Your task to perform on an android device: open the mobile data screen to see how much data has been used Image 0: 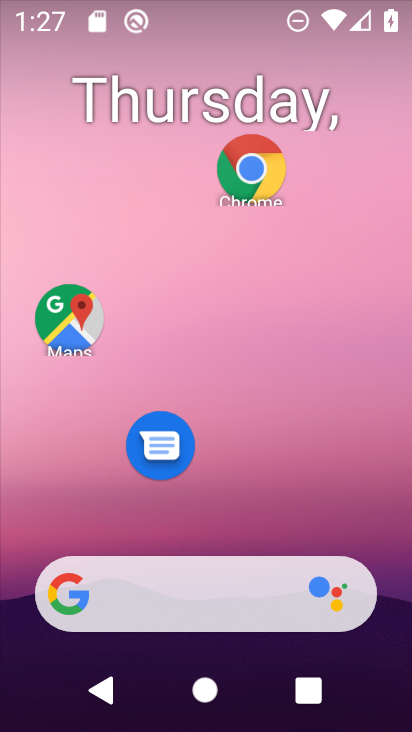
Step 0: drag from (238, 612) to (321, 85)
Your task to perform on an android device: open the mobile data screen to see how much data has been used Image 1: 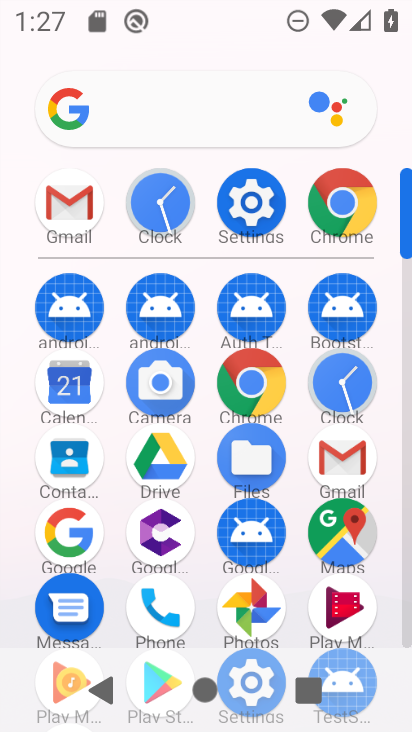
Step 1: click (249, 197)
Your task to perform on an android device: open the mobile data screen to see how much data has been used Image 2: 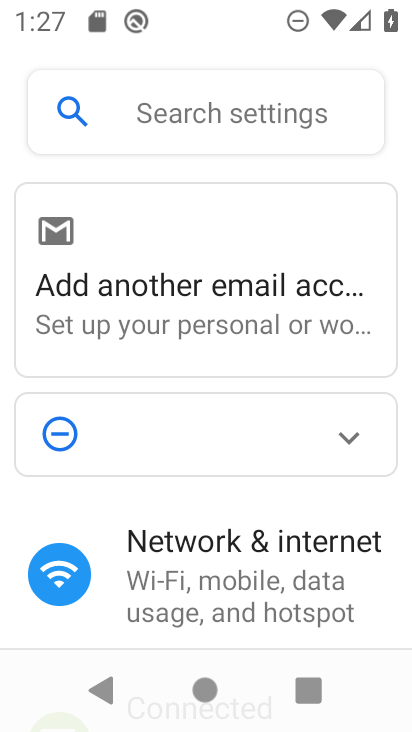
Step 2: click (211, 116)
Your task to perform on an android device: open the mobile data screen to see how much data has been used Image 3: 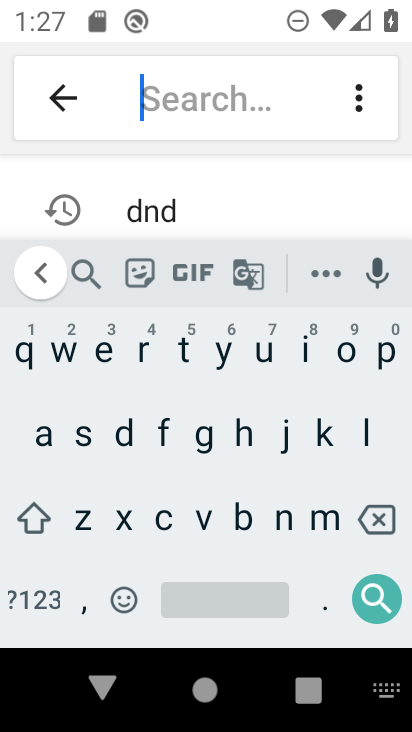
Step 3: click (126, 435)
Your task to perform on an android device: open the mobile data screen to see how much data has been used Image 4: 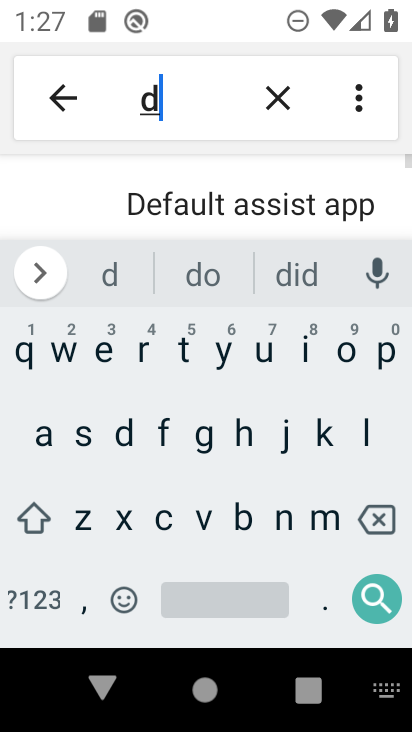
Step 4: click (45, 441)
Your task to perform on an android device: open the mobile data screen to see how much data has been used Image 5: 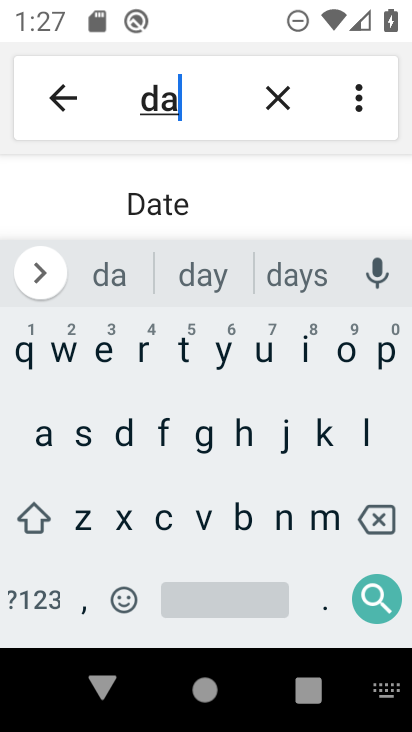
Step 5: click (180, 367)
Your task to perform on an android device: open the mobile data screen to see how much data has been used Image 6: 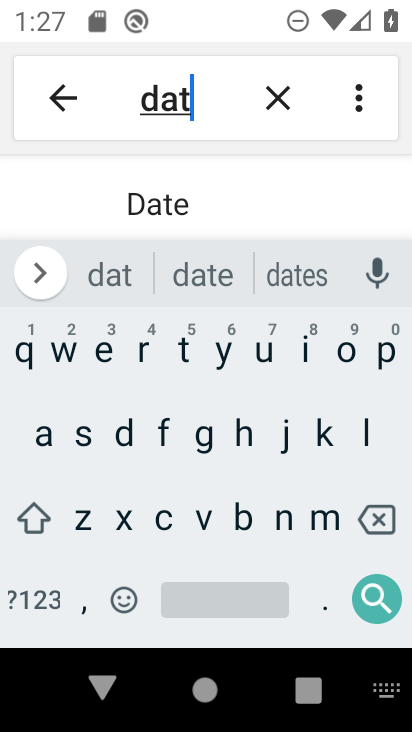
Step 6: click (49, 435)
Your task to perform on an android device: open the mobile data screen to see how much data has been used Image 7: 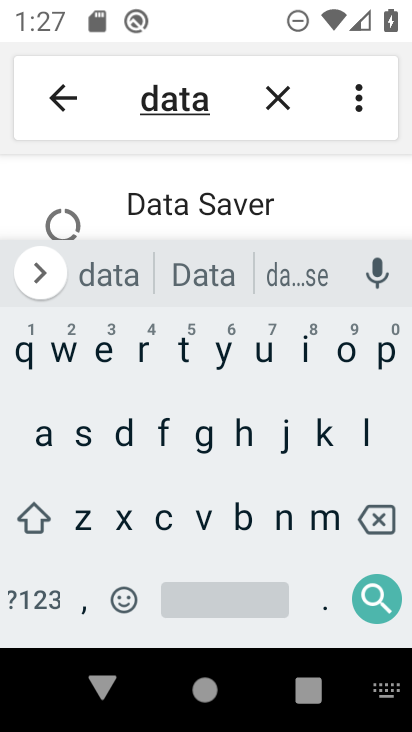
Step 7: click (217, 593)
Your task to perform on an android device: open the mobile data screen to see how much data has been used Image 8: 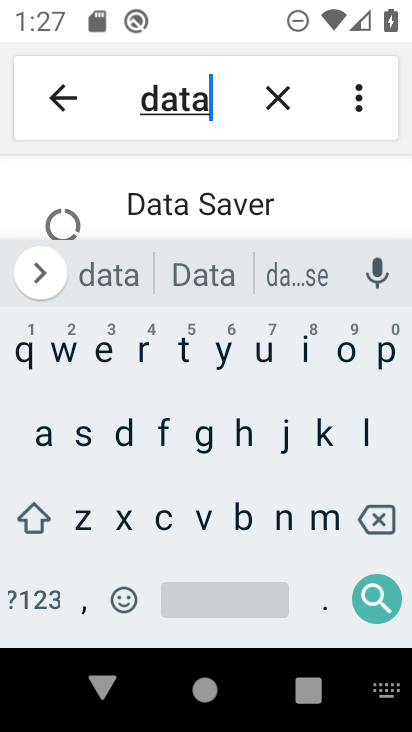
Step 8: click (217, 593)
Your task to perform on an android device: open the mobile data screen to see how much data has been used Image 9: 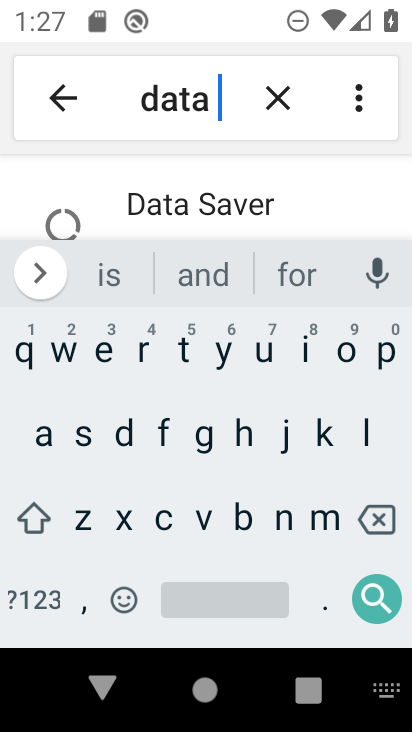
Step 9: click (271, 357)
Your task to perform on an android device: open the mobile data screen to see how much data has been used Image 10: 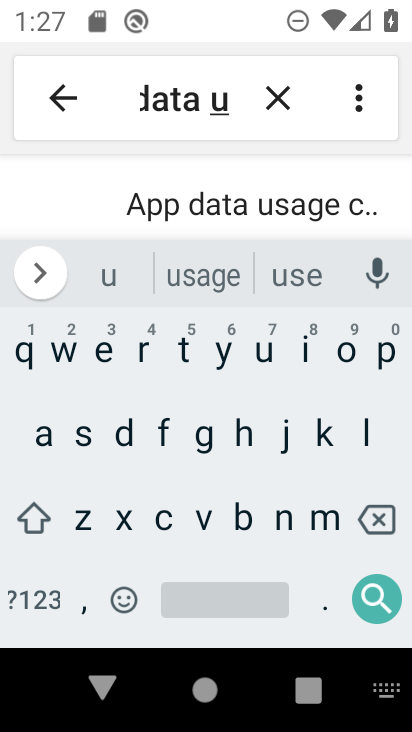
Step 10: drag from (194, 200) to (195, 139)
Your task to perform on an android device: open the mobile data screen to see how much data has been used Image 11: 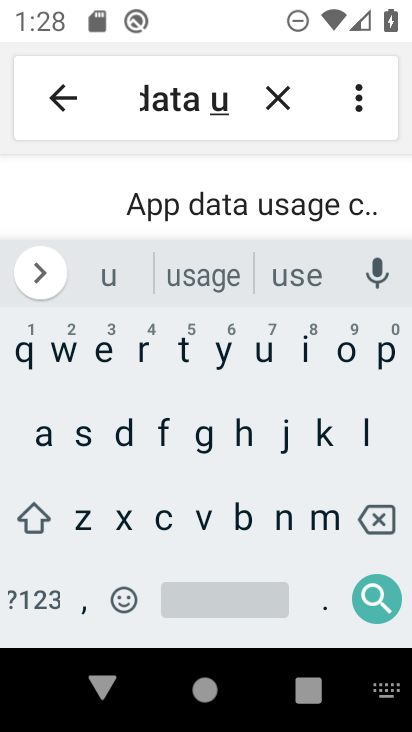
Step 11: press back button
Your task to perform on an android device: open the mobile data screen to see how much data has been used Image 12: 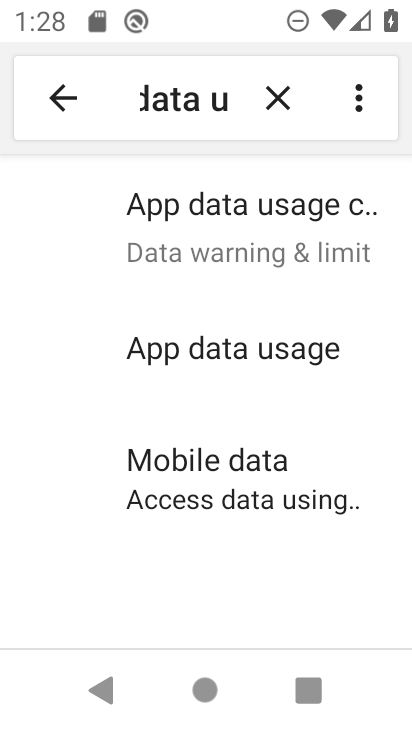
Step 12: click (191, 485)
Your task to perform on an android device: open the mobile data screen to see how much data has been used Image 13: 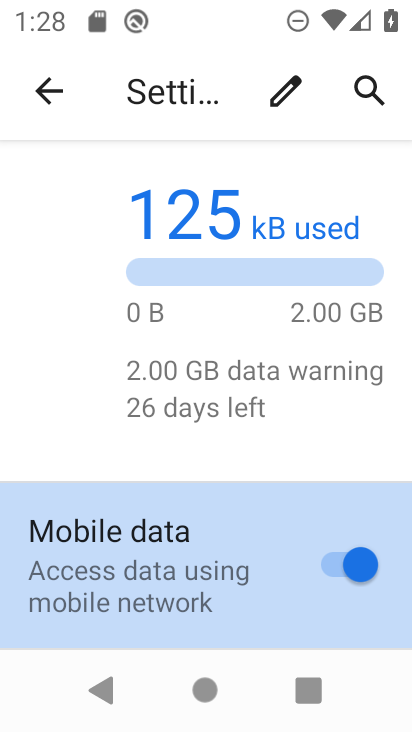
Step 13: task complete